Your task to perform on an android device: Find coffee shops on Maps Image 0: 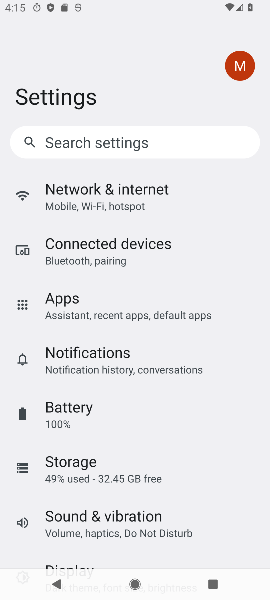
Step 0: press home button
Your task to perform on an android device: Find coffee shops on Maps Image 1: 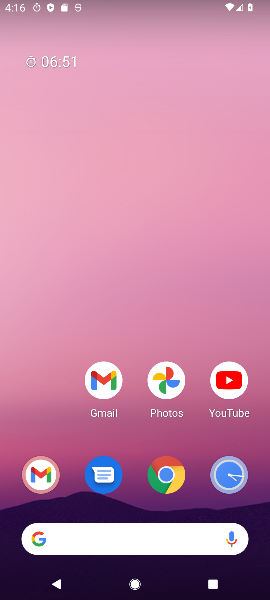
Step 1: drag from (107, 442) to (145, 142)
Your task to perform on an android device: Find coffee shops on Maps Image 2: 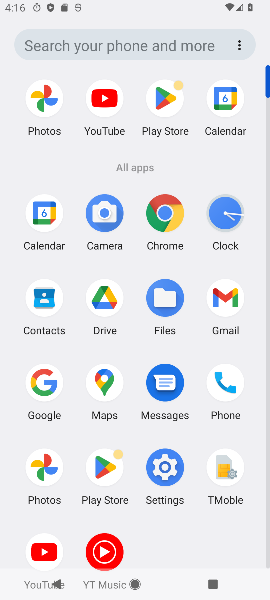
Step 2: click (97, 377)
Your task to perform on an android device: Find coffee shops on Maps Image 3: 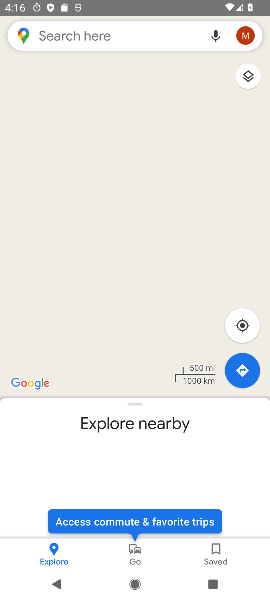
Step 3: click (94, 39)
Your task to perform on an android device: Find coffee shops on Maps Image 4: 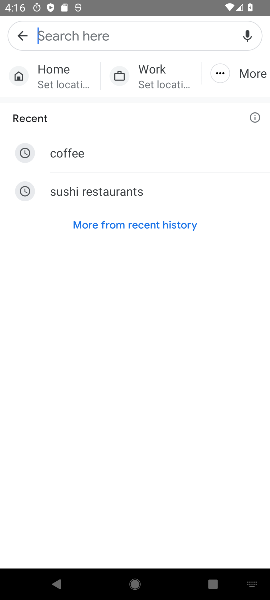
Step 4: type "coffee shops"
Your task to perform on an android device: Find coffee shops on Maps Image 5: 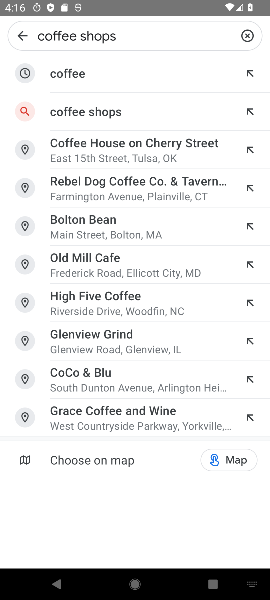
Step 5: click (38, 101)
Your task to perform on an android device: Find coffee shops on Maps Image 6: 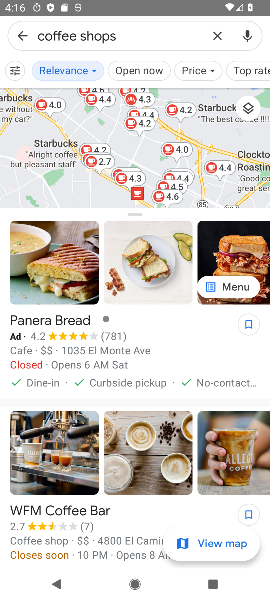
Step 6: task complete